Your task to perform on an android device: Toggle the flashlight Image 0: 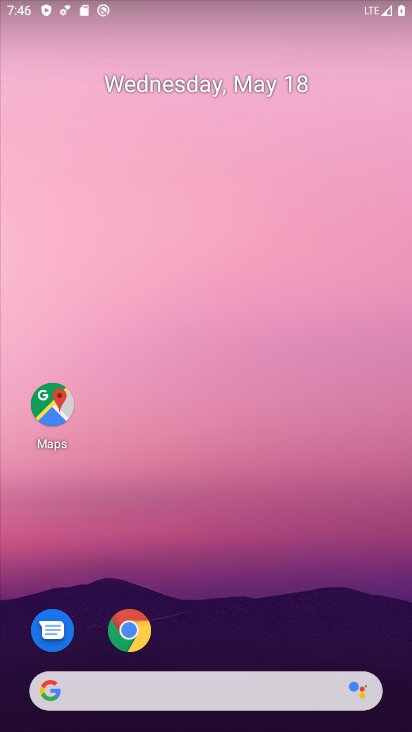
Step 0: press home button
Your task to perform on an android device: Toggle the flashlight Image 1: 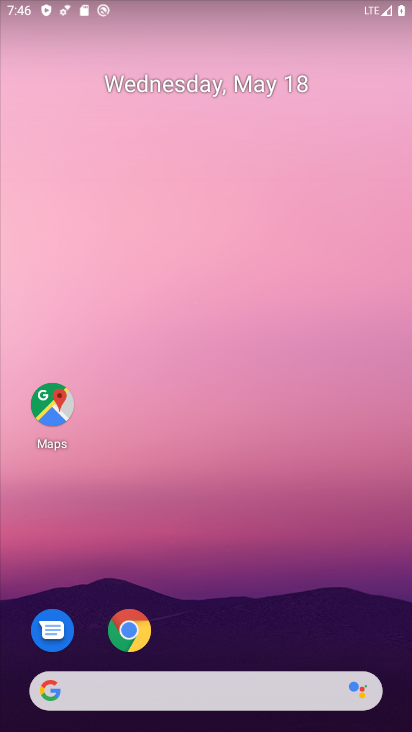
Step 1: task complete